Your task to perform on an android device: Find coffee shops on Maps Image 0: 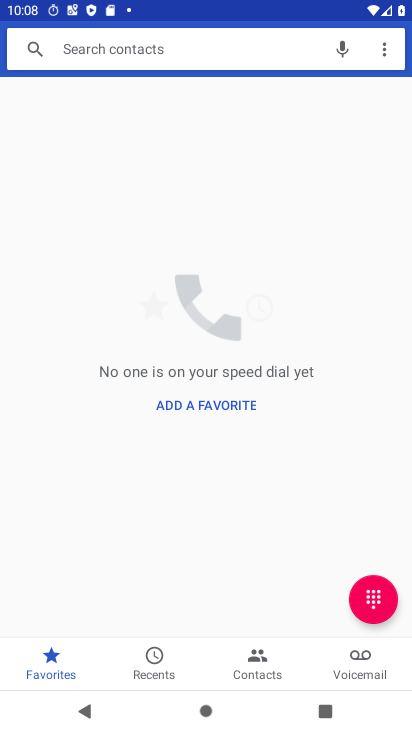
Step 0: press home button
Your task to perform on an android device: Find coffee shops on Maps Image 1: 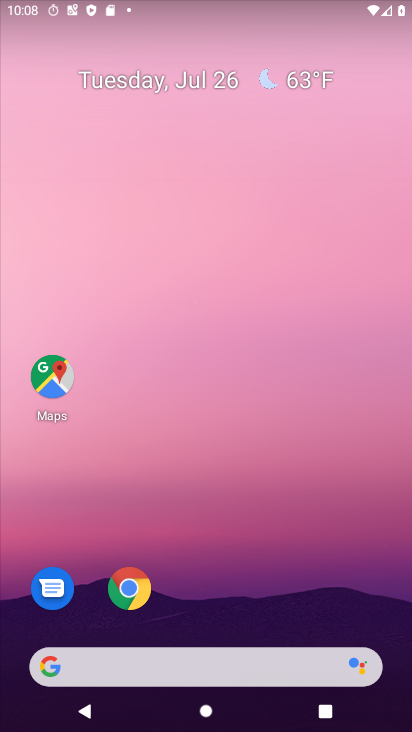
Step 1: click (39, 375)
Your task to perform on an android device: Find coffee shops on Maps Image 2: 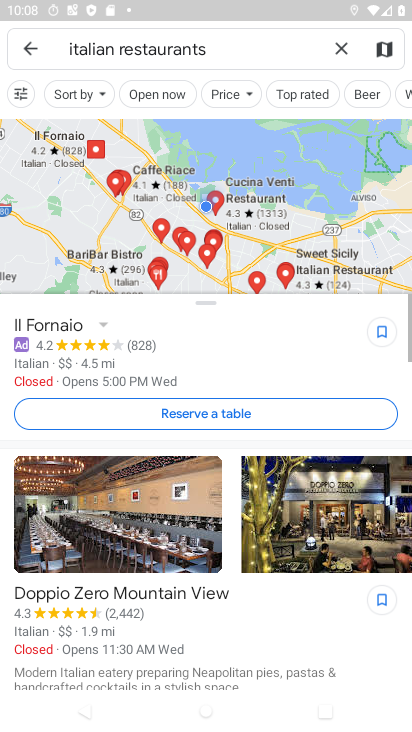
Step 2: click (346, 38)
Your task to perform on an android device: Find coffee shops on Maps Image 3: 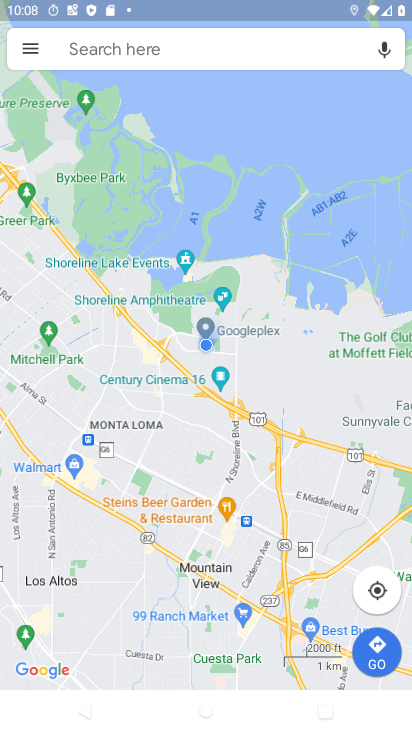
Step 3: click (206, 30)
Your task to perform on an android device: Find coffee shops on Maps Image 4: 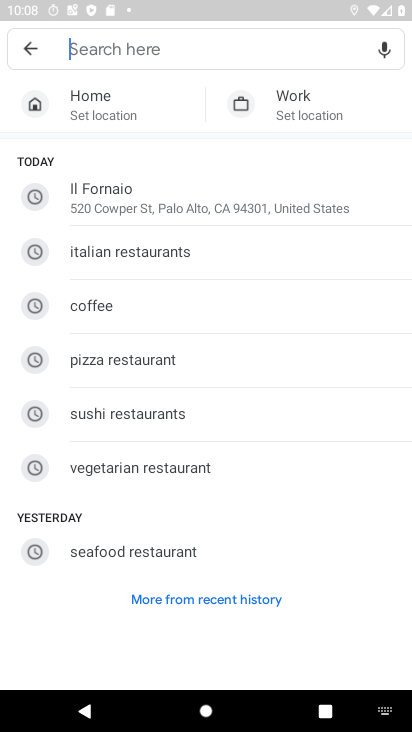
Step 4: click (130, 321)
Your task to perform on an android device: Find coffee shops on Maps Image 5: 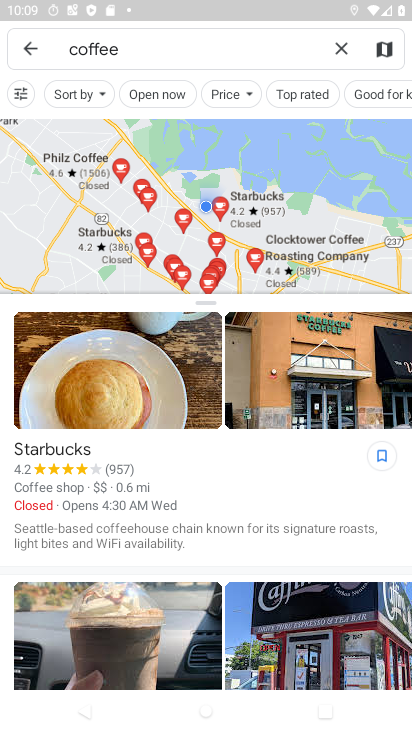
Step 5: task complete